Your task to perform on an android device: Open accessibility settings Image 0: 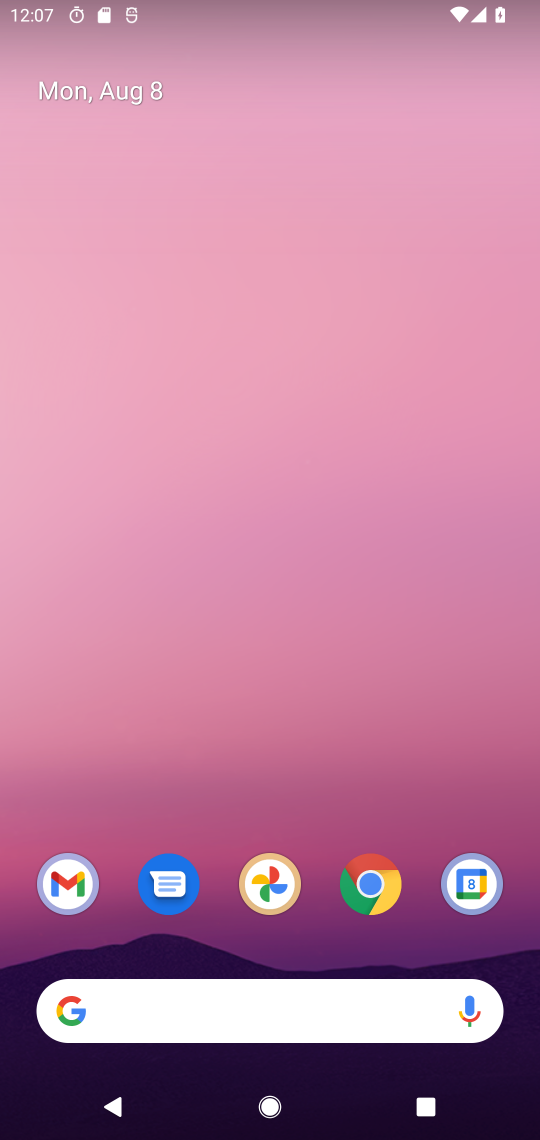
Step 0: click (229, 77)
Your task to perform on an android device: Open accessibility settings Image 1: 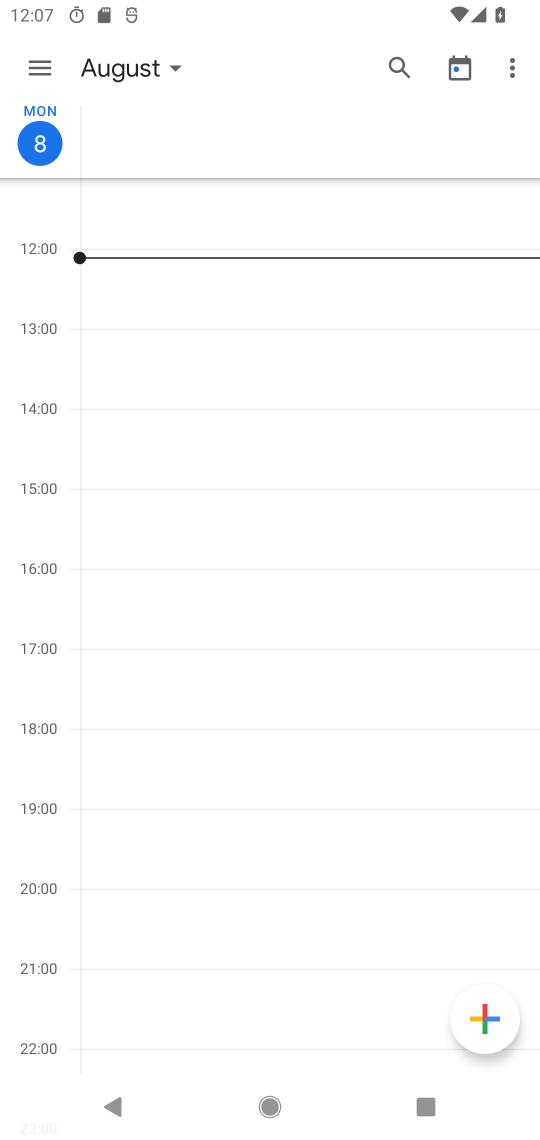
Step 1: drag from (214, 18) to (273, 27)
Your task to perform on an android device: Open accessibility settings Image 2: 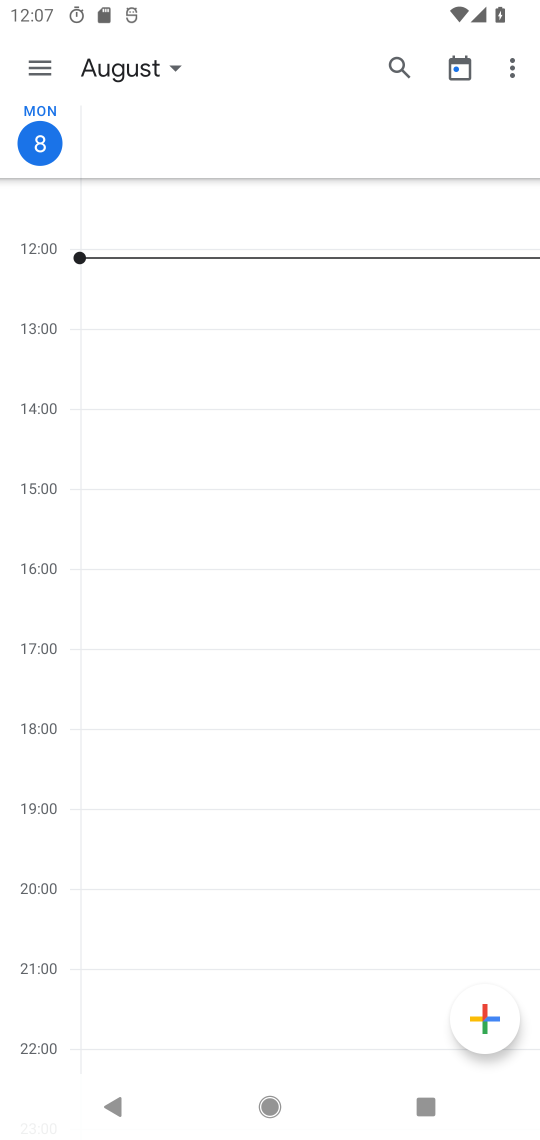
Step 2: press home button
Your task to perform on an android device: Open accessibility settings Image 3: 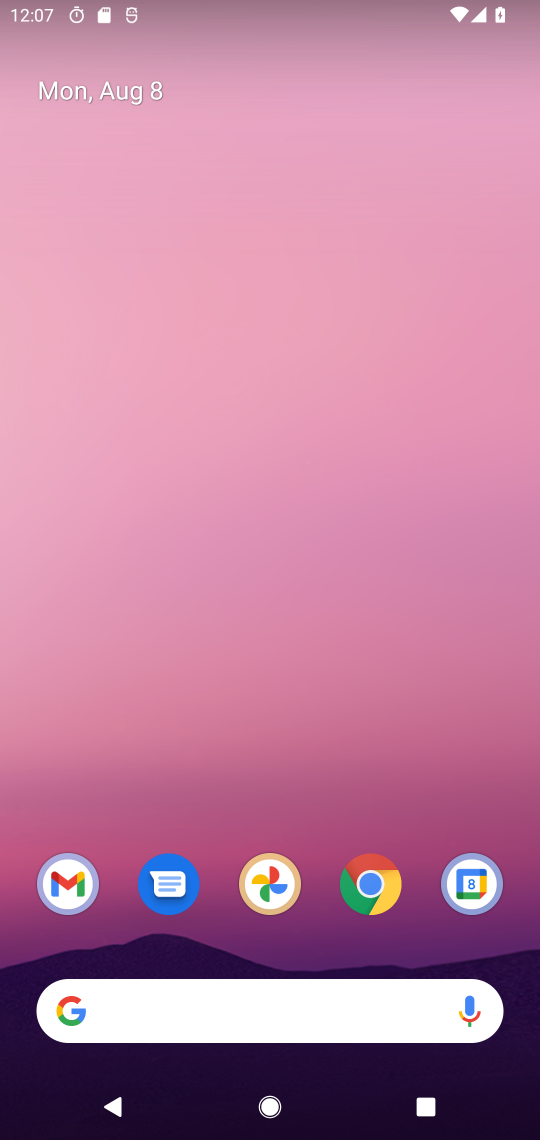
Step 3: drag from (269, 554) to (393, 76)
Your task to perform on an android device: Open accessibility settings Image 4: 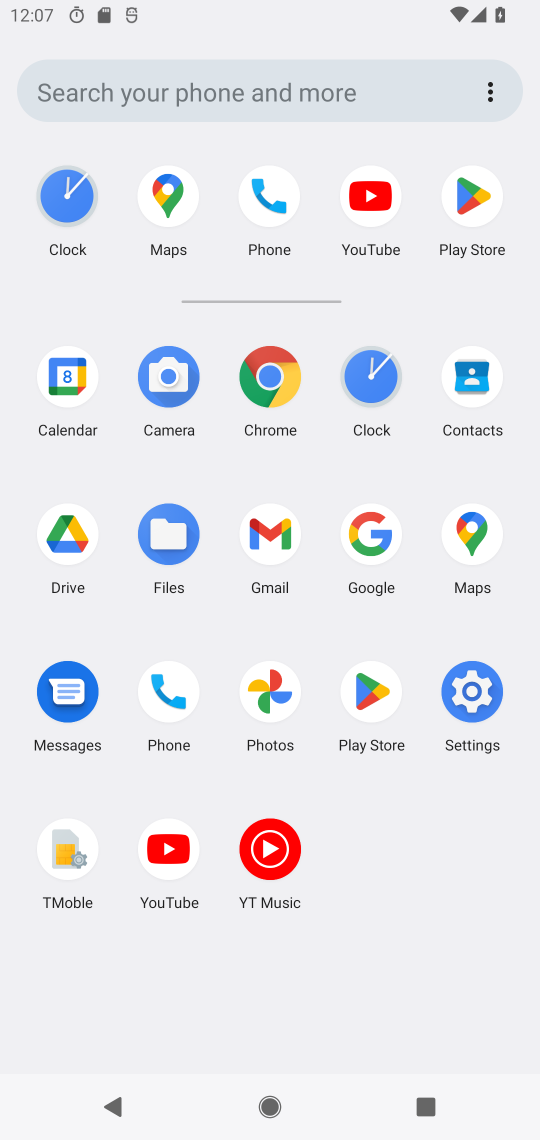
Step 4: click (480, 692)
Your task to perform on an android device: Open accessibility settings Image 5: 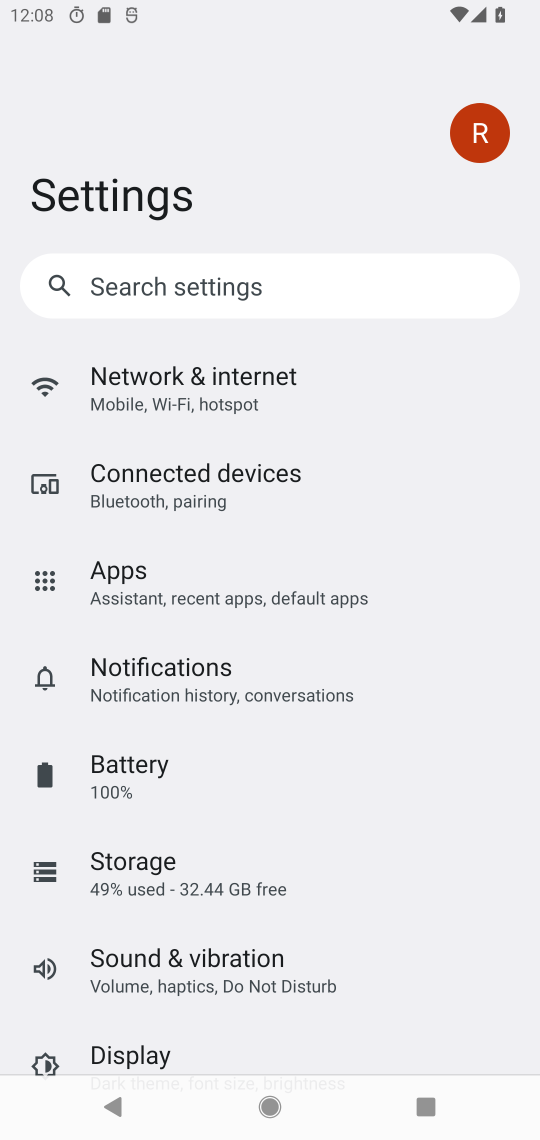
Step 5: drag from (226, 923) to (217, 251)
Your task to perform on an android device: Open accessibility settings Image 6: 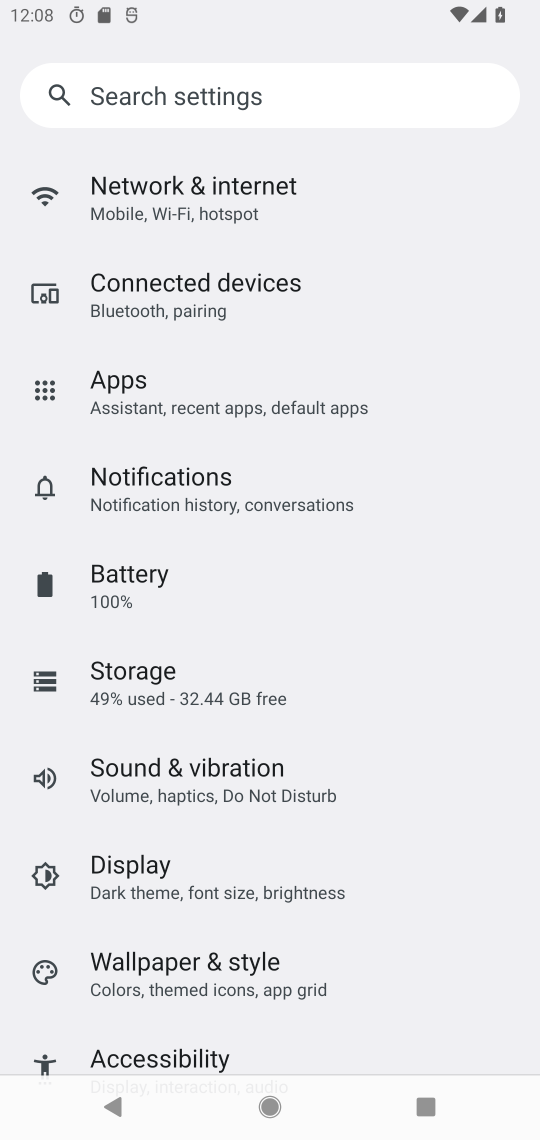
Step 6: click (125, 1056)
Your task to perform on an android device: Open accessibility settings Image 7: 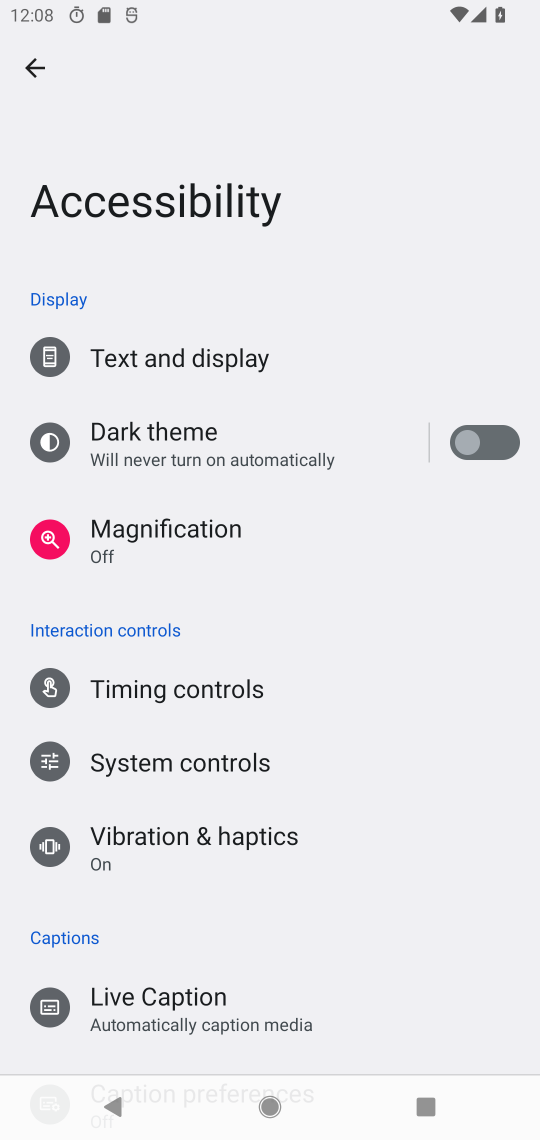
Step 7: task complete